Your task to perform on an android device: turn on location history Image 0: 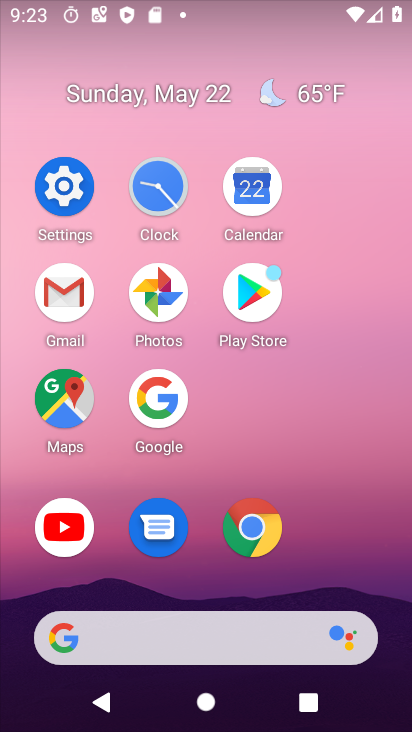
Step 0: click (77, 200)
Your task to perform on an android device: turn on location history Image 1: 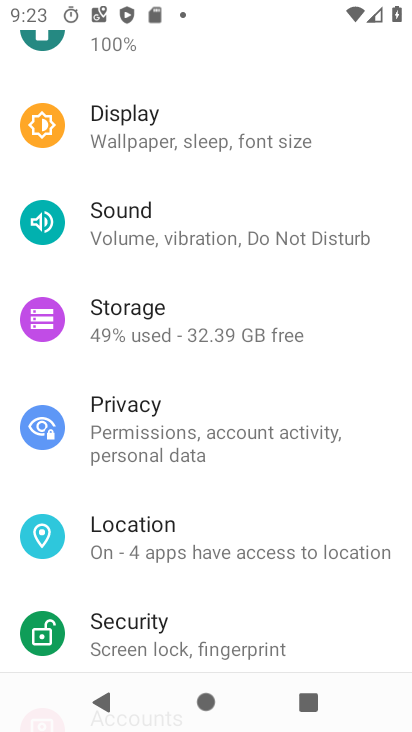
Step 1: click (255, 534)
Your task to perform on an android device: turn on location history Image 2: 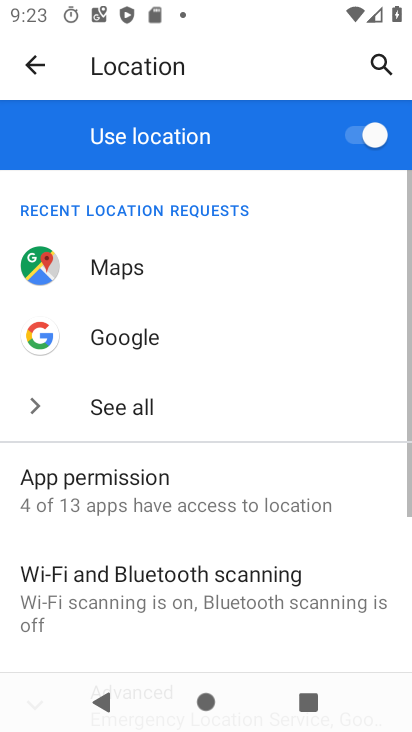
Step 2: drag from (189, 600) to (219, 210)
Your task to perform on an android device: turn on location history Image 3: 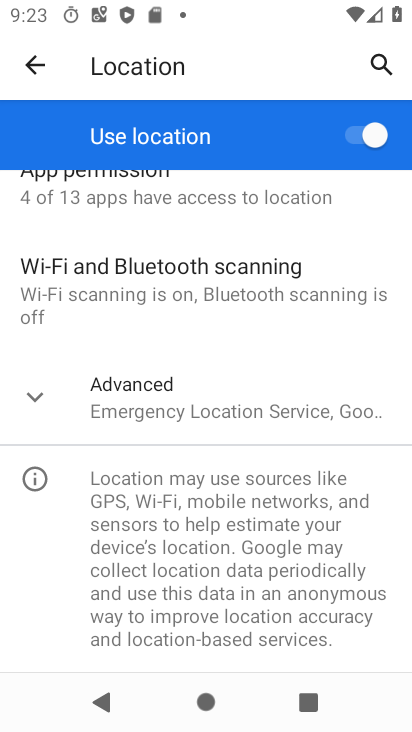
Step 3: click (182, 419)
Your task to perform on an android device: turn on location history Image 4: 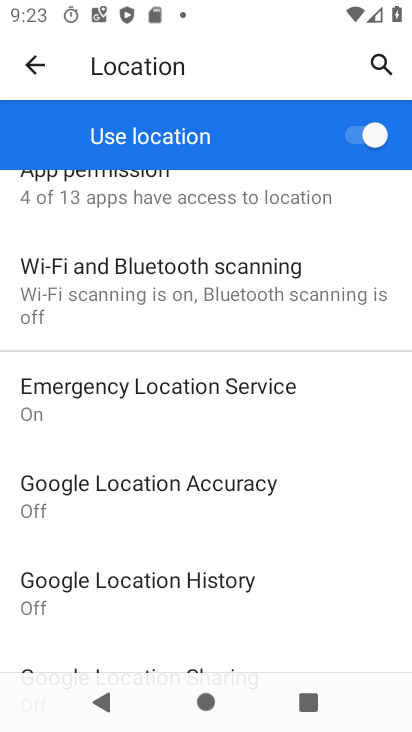
Step 4: click (258, 565)
Your task to perform on an android device: turn on location history Image 5: 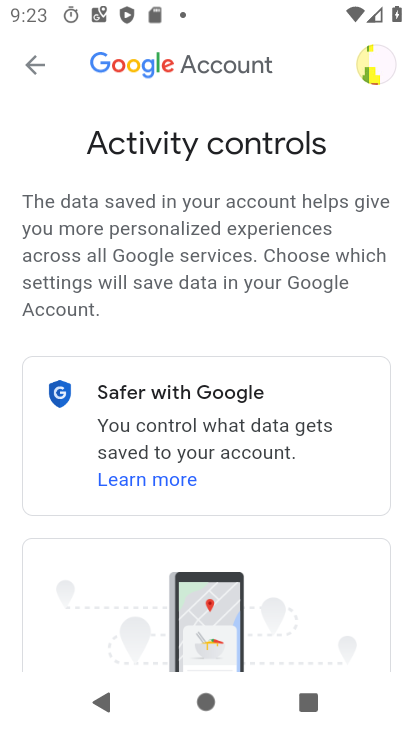
Step 5: task complete